Your task to perform on an android device: toggle priority inbox in the gmail app Image 0: 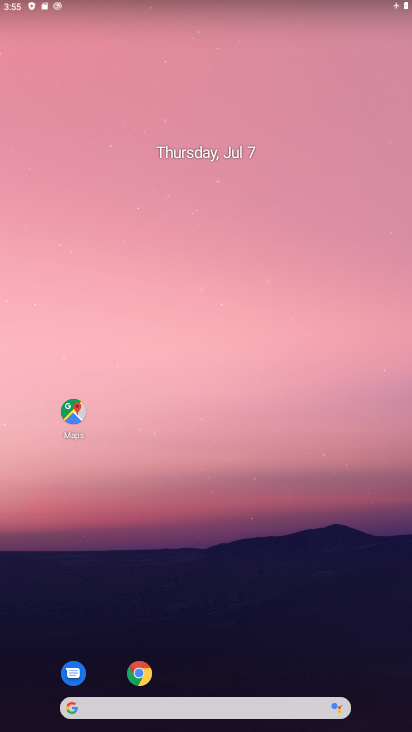
Step 0: drag from (220, 669) to (225, 36)
Your task to perform on an android device: toggle priority inbox in the gmail app Image 1: 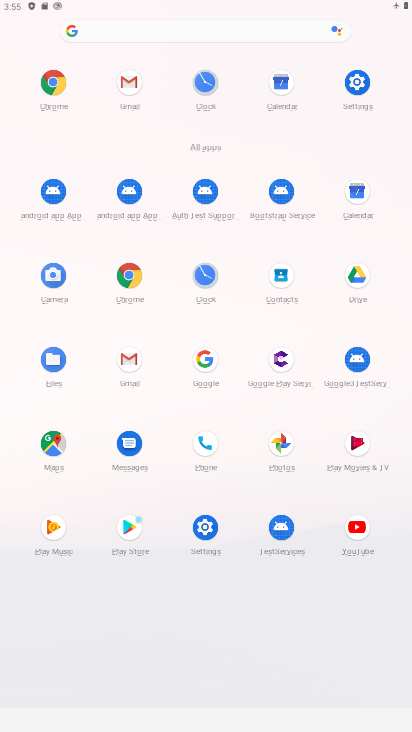
Step 1: click (126, 350)
Your task to perform on an android device: toggle priority inbox in the gmail app Image 2: 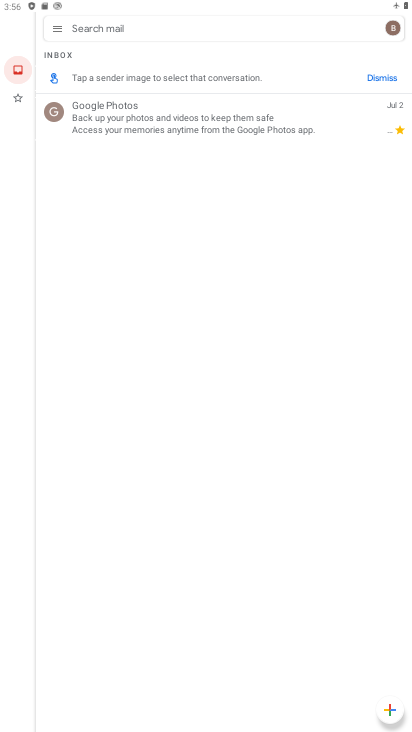
Step 2: click (50, 23)
Your task to perform on an android device: toggle priority inbox in the gmail app Image 3: 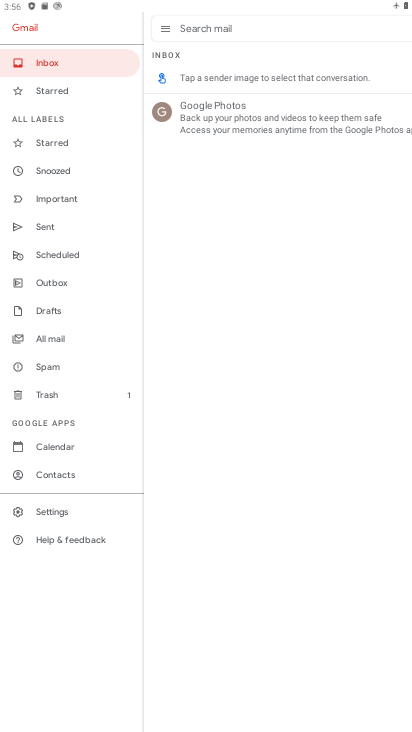
Step 3: click (69, 509)
Your task to perform on an android device: toggle priority inbox in the gmail app Image 4: 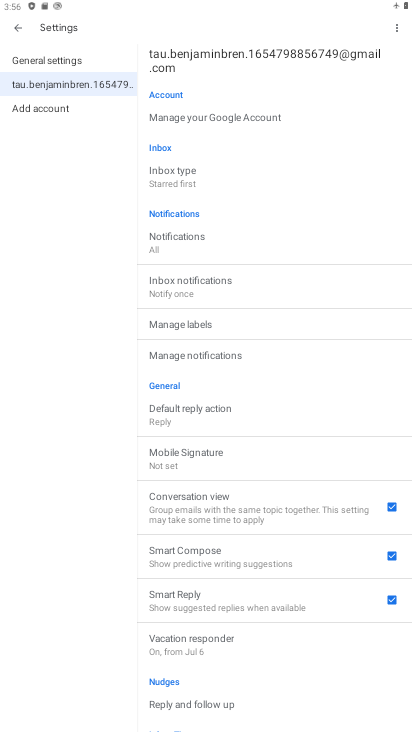
Step 4: click (169, 174)
Your task to perform on an android device: toggle priority inbox in the gmail app Image 5: 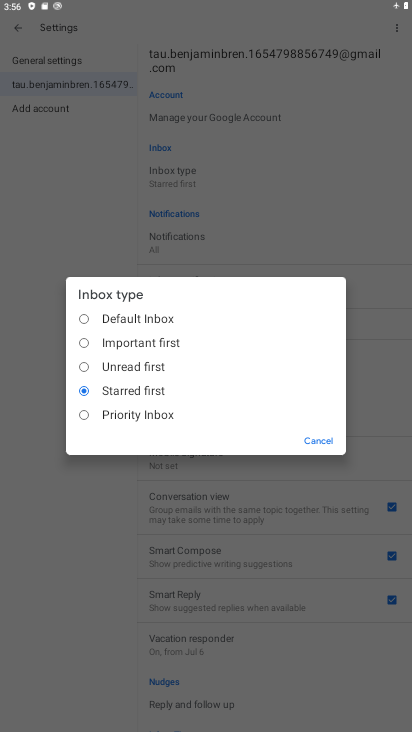
Step 5: click (87, 413)
Your task to perform on an android device: toggle priority inbox in the gmail app Image 6: 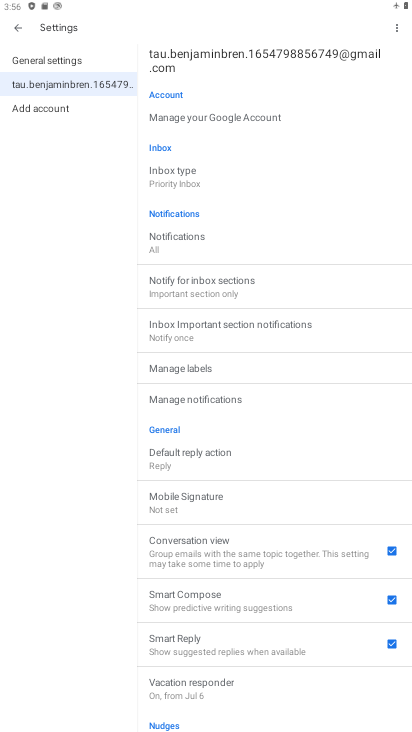
Step 6: task complete